Your task to perform on an android device: change the clock display to show seconds Image 0: 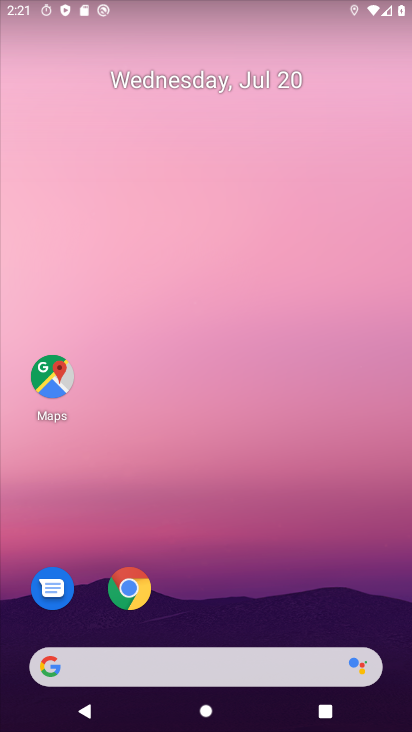
Step 0: drag from (184, 618) to (205, 170)
Your task to perform on an android device: change the clock display to show seconds Image 1: 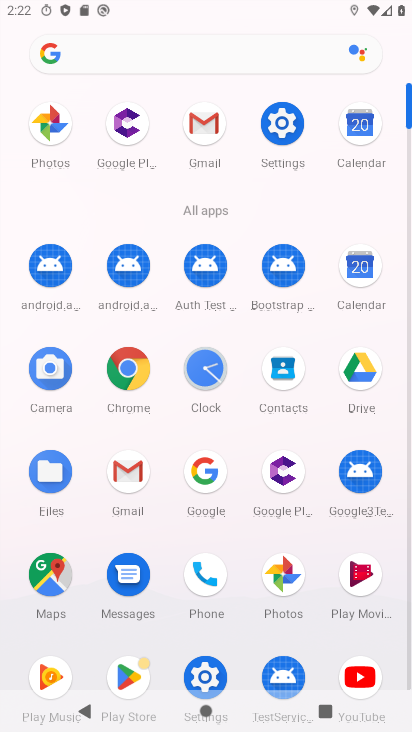
Step 1: click (204, 367)
Your task to perform on an android device: change the clock display to show seconds Image 2: 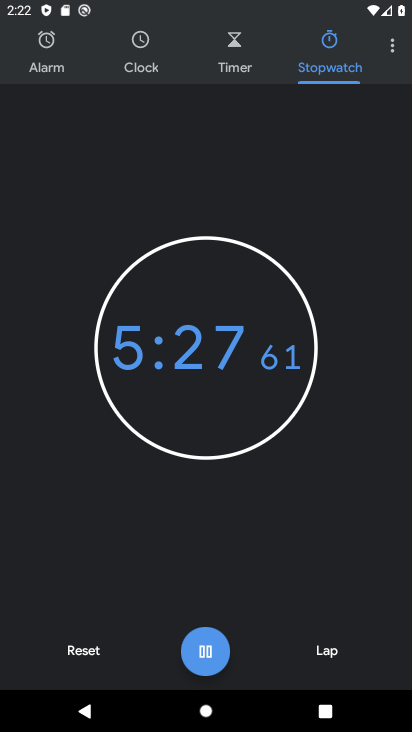
Step 2: click (390, 46)
Your task to perform on an android device: change the clock display to show seconds Image 3: 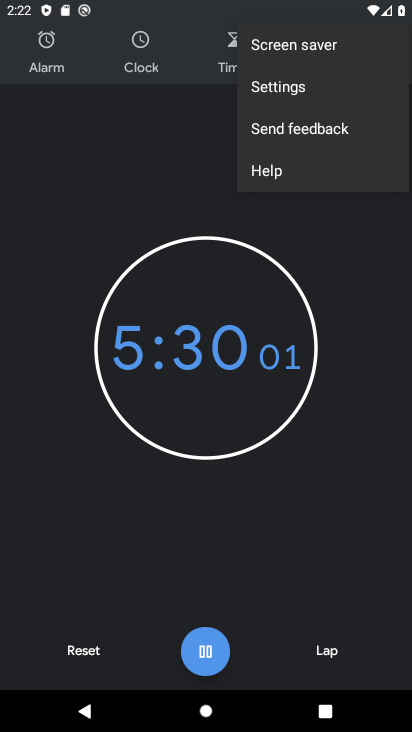
Step 3: click (286, 85)
Your task to perform on an android device: change the clock display to show seconds Image 4: 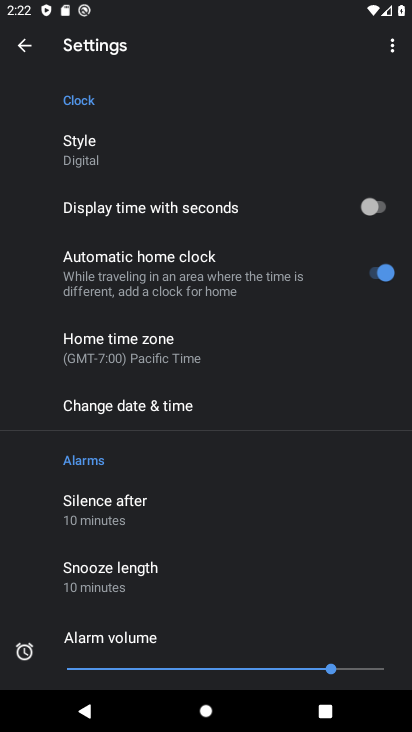
Step 4: click (200, 204)
Your task to perform on an android device: change the clock display to show seconds Image 5: 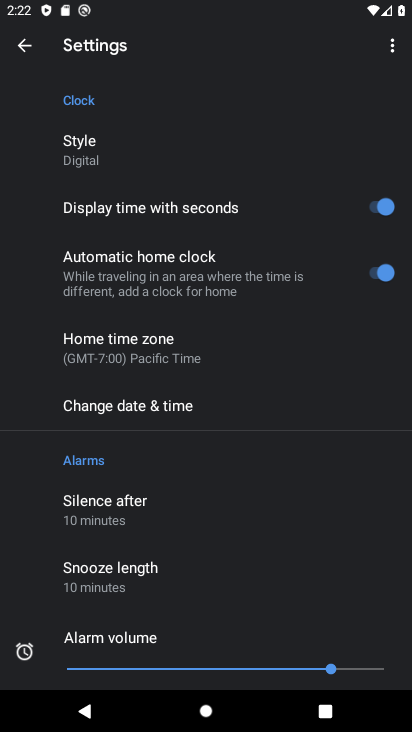
Step 5: task complete